Your task to perform on an android device: What's the weather today? Image 0: 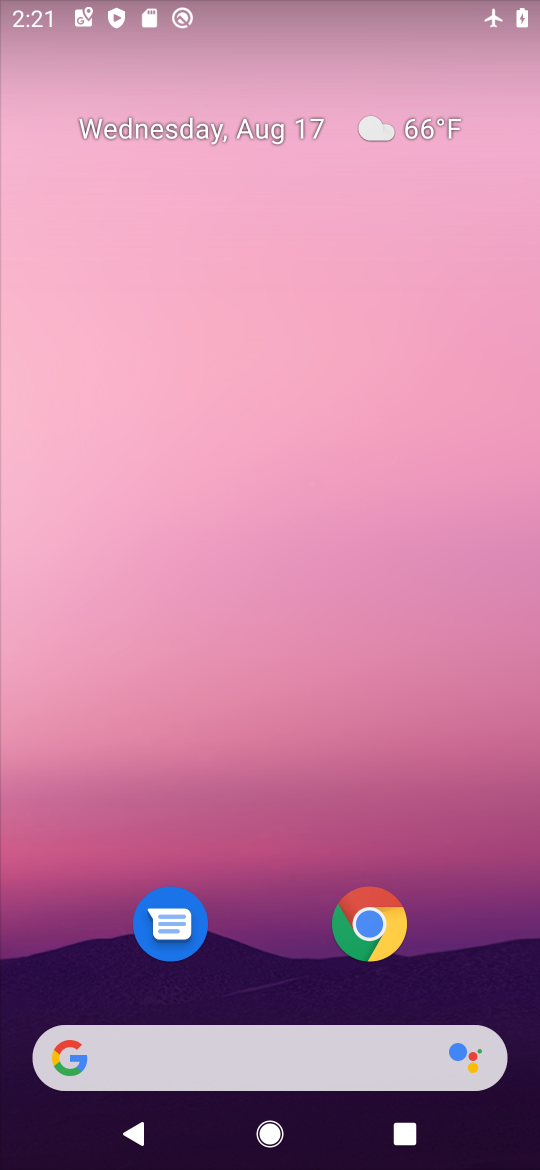
Step 0: drag from (225, 1073) to (235, 102)
Your task to perform on an android device: What's the weather today? Image 1: 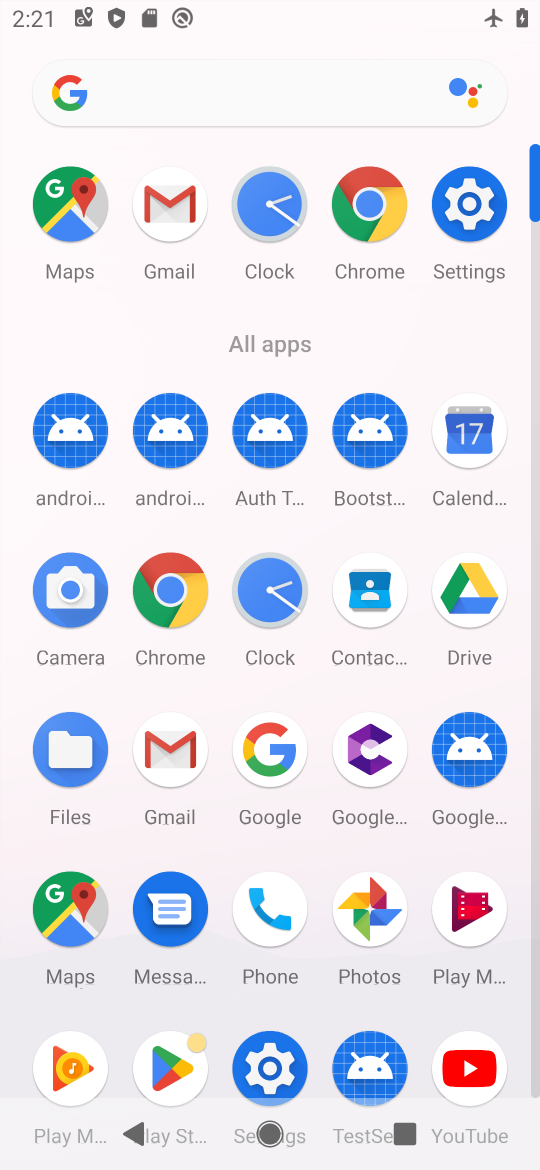
Step 1: click (269, 751)
Your task to perform on an android device: What's the weather today? Image 2: 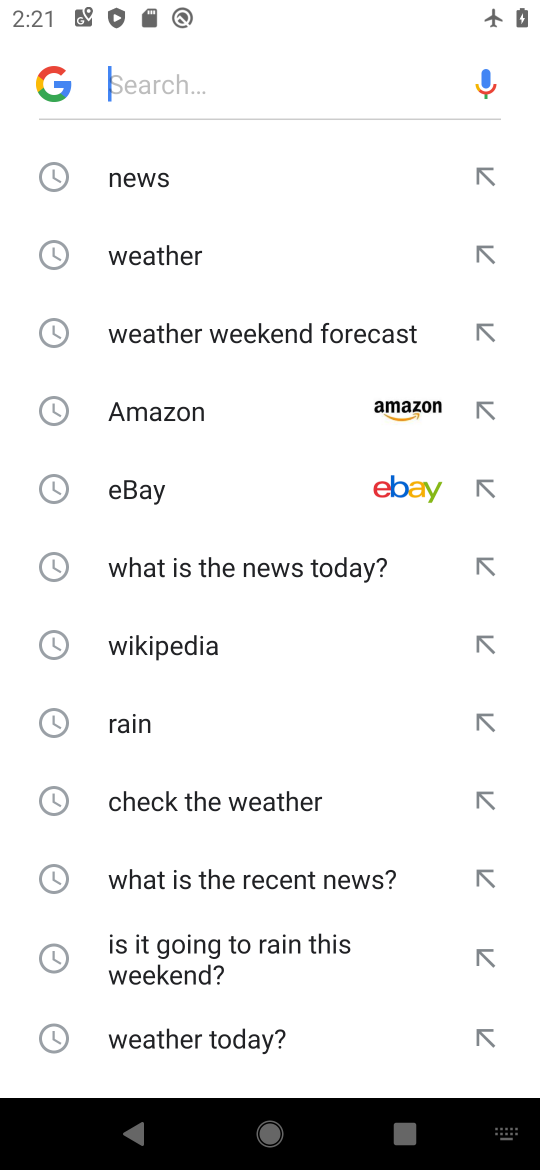
Step 2: click (156, 259)
Your task to perform on an android device: What's the weather today? Image 3: 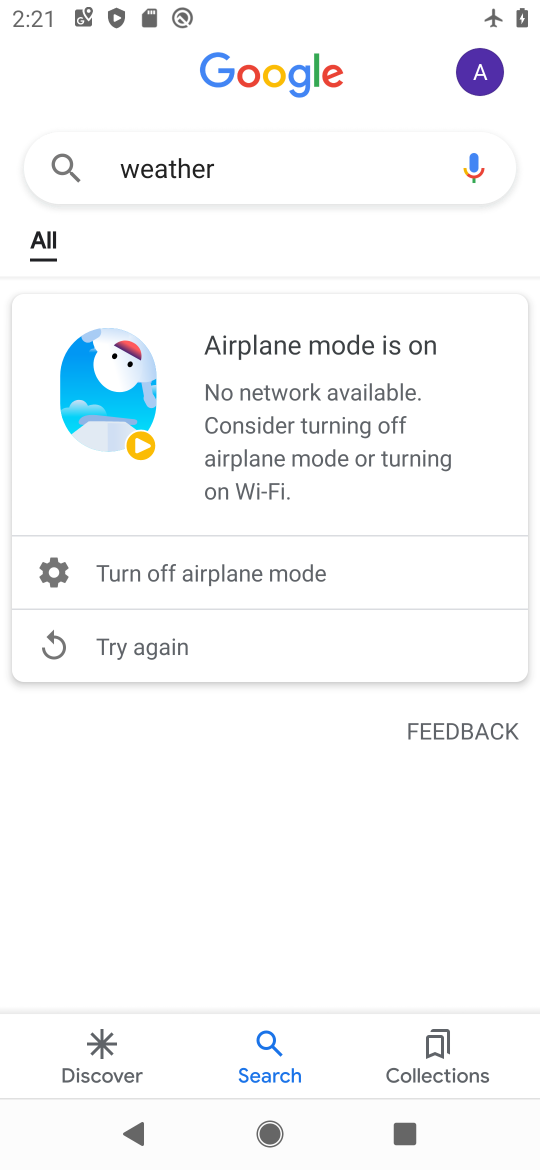
Step 3: task complete